Your task to perform on an android device: turn on showing notifications on the lock screen Image 0: 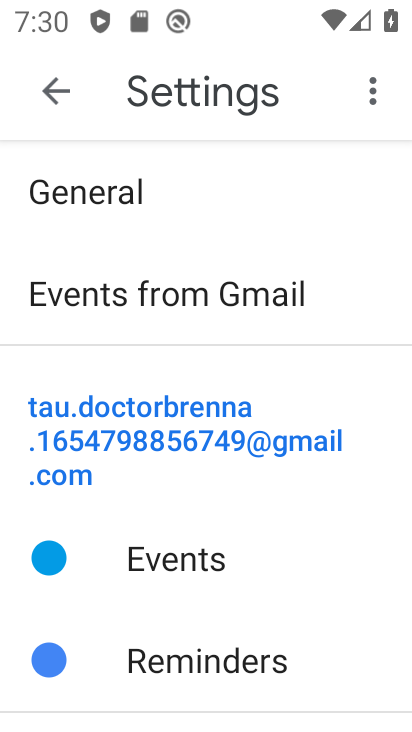
Step 0: press home button
Your task to perform on an android device: turn on showing notifications on the lock screen Image 1: 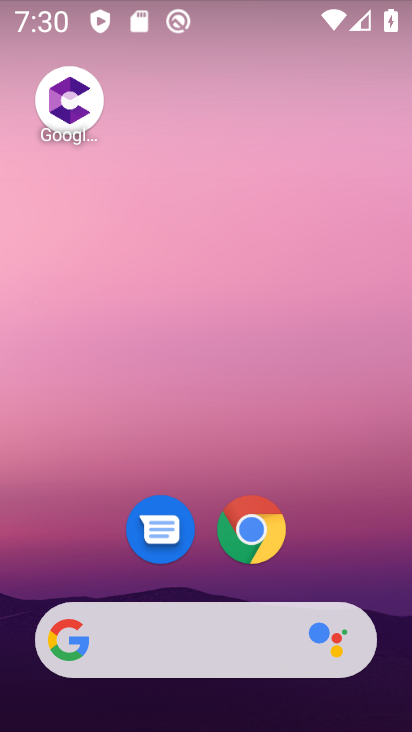
Step 1: drag from (190, 648) to (256, 216)
Your task to perform on an android device: turn on showing notifications on the lock screen Image 2: 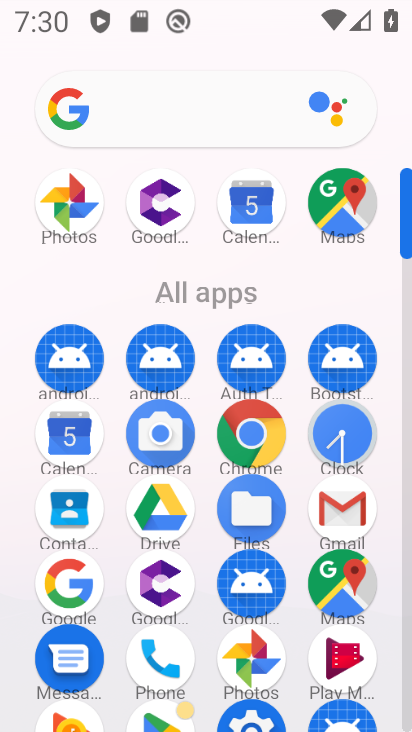
Step 2: drag from (204, 576) to (176, 270)
Your task to perform on an android device: turn on showing notifications on the lock screen Image 3: 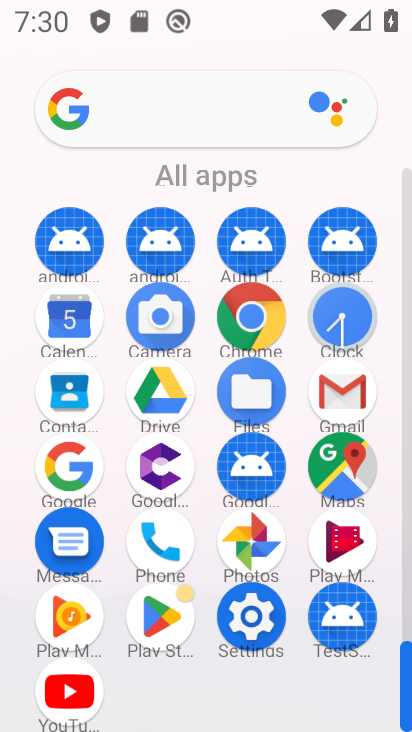
Step 3: click (251, 613)
Your task to perform on an android device: turn on showing notifications on the lock screen Image 4: 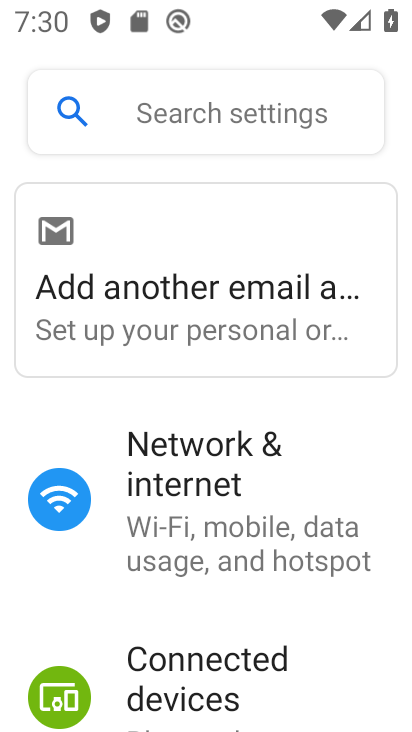
Step 4: drag from (217, 621) to (282, 472)
Your task to perform on an android device: turn on showing notifications on the lock screen Image 5: 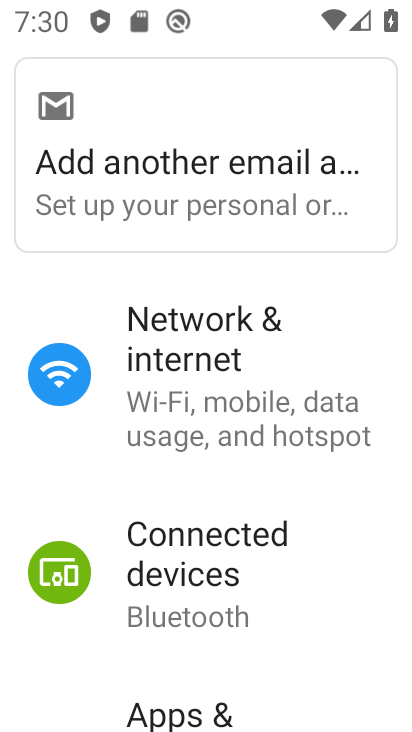
Step 5: drag from (181, 673) to (276, 534)
Your task to perform on an android device: turn on showing notifications on the lock screen Image 6: 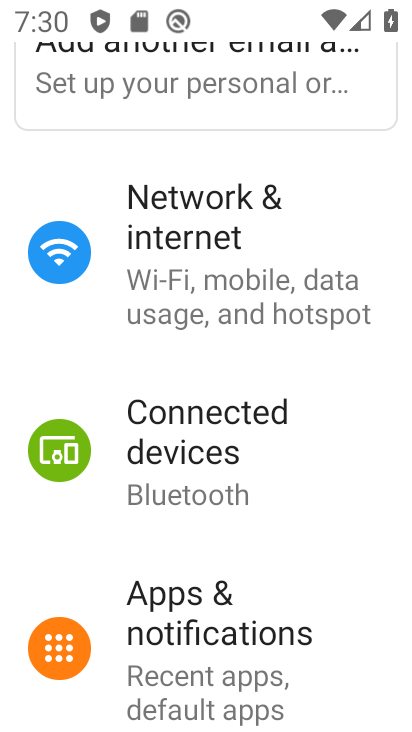
Step 6: drag from (219, 557) to (275, 458)
Your task to perform on an android device: turn on showing notifications on the lock screen Image 7: 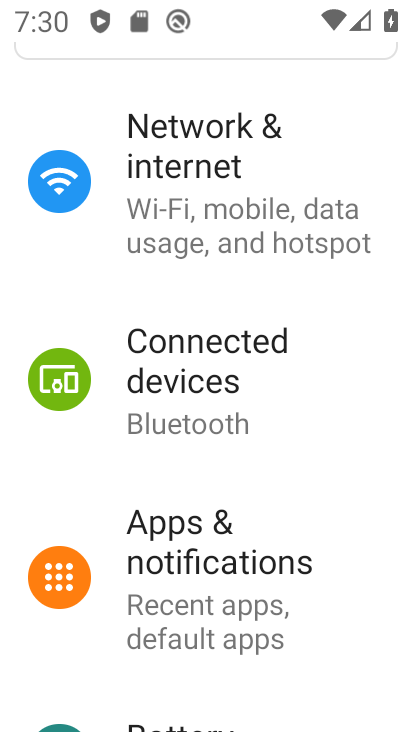
Step 7: click (198, 542)
Your task to perform on an android device: turn on showing notifications on the lock screen Image 8: 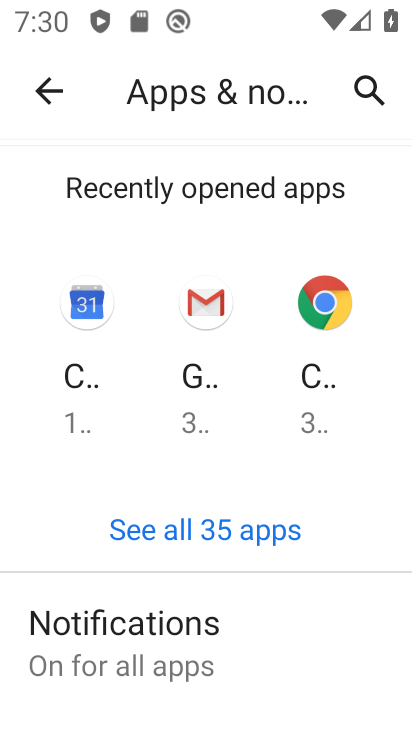
Step 8: click (174, 640)
Your task to perform on an android device: turn on showing notifications on the lock screen Image 9: 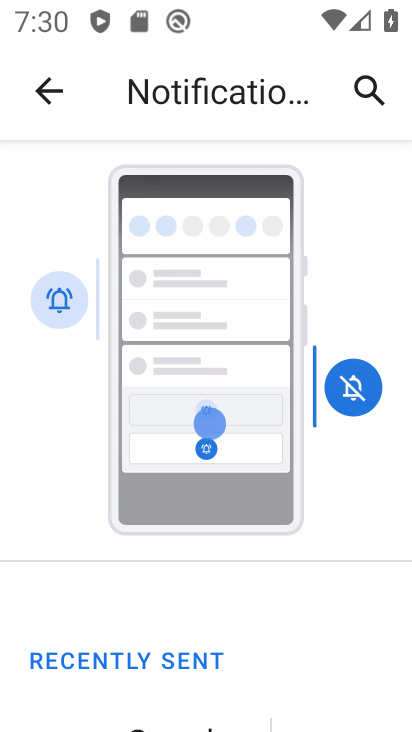
Step 9: drag from (163, 618) to (209, 488)
Your task to perform on an android device: turn on showing notifications on the lock screen Image 10: 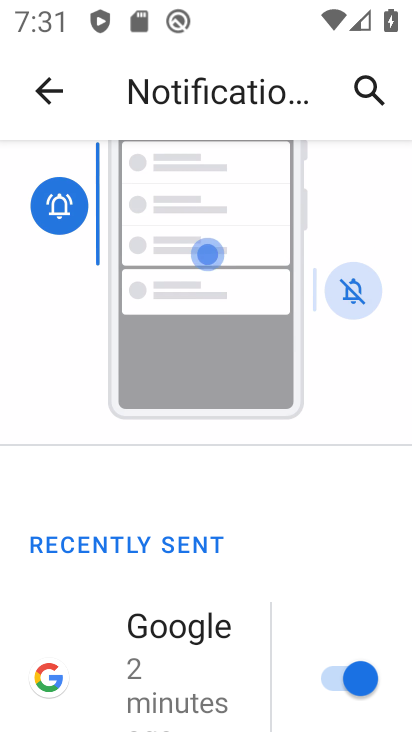
Step 10: drag from (178, 602) to (292, 451)
Your task to perform on an android device: turn on showing notifications on the lock screen Image 11: 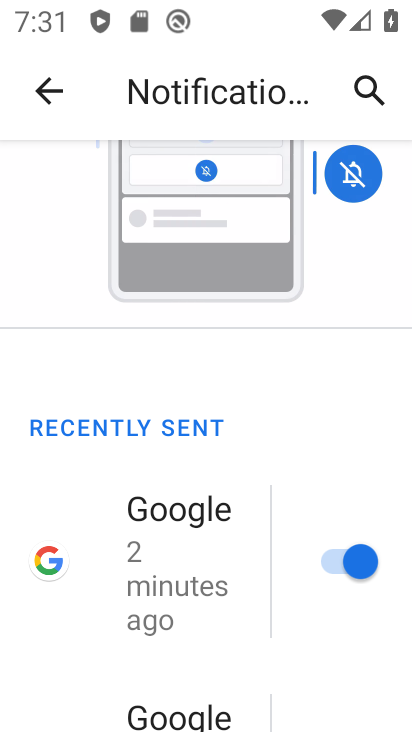
Step 11: drag from (164, 662) to (305, 465)
Your task to perform on an android device: turn on showing notifications on the lock screen Image 12: 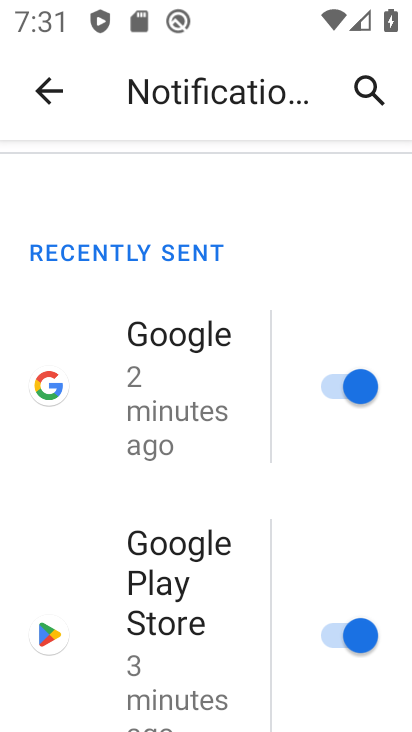
Step 12: drag from (182, 498) to (274, 325)
Your task to perform on an android device: turn on showing notifications on the lock screen Image 13: 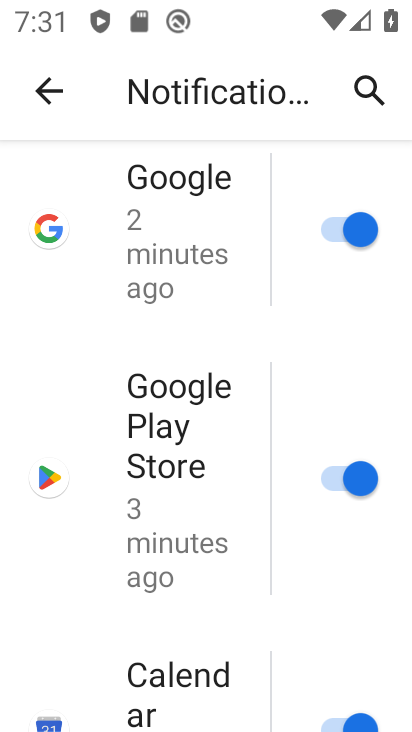
Step 13: drag from (175, 621) to (271, 443)
Your task to perform on an android device: turn on showing notifications on the lock screen Image 14: 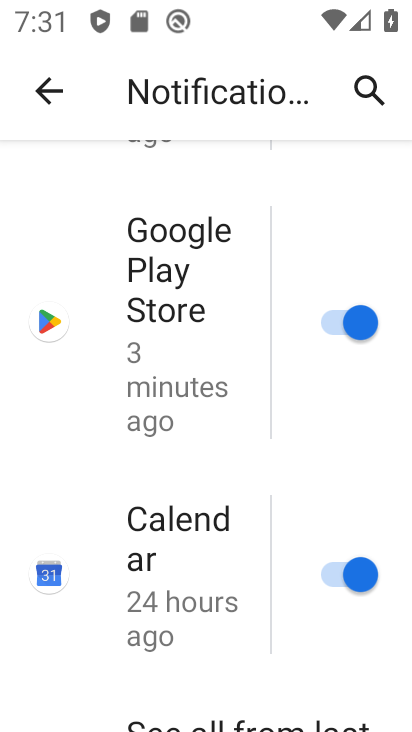
Step 14: drag from (181, 678) to (291, 513)
Your task to perform on an android device: turn on showing notifications on the lock screen Image 15: 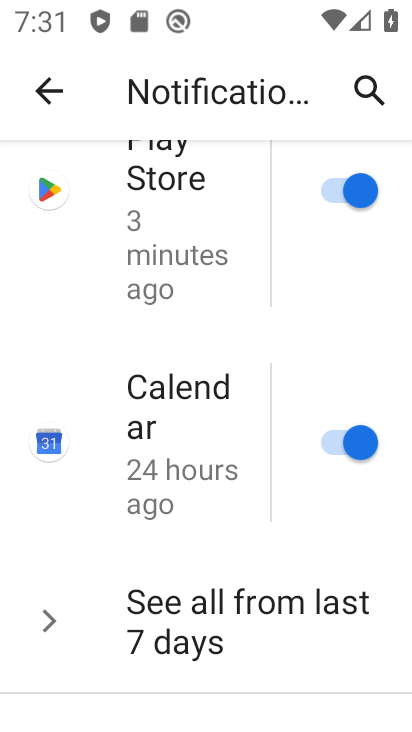
Step 15: drag from (156, 563) to (269, 396)
Your task to perform on an android device: turn on showing notifications on the lock screen Image 16: 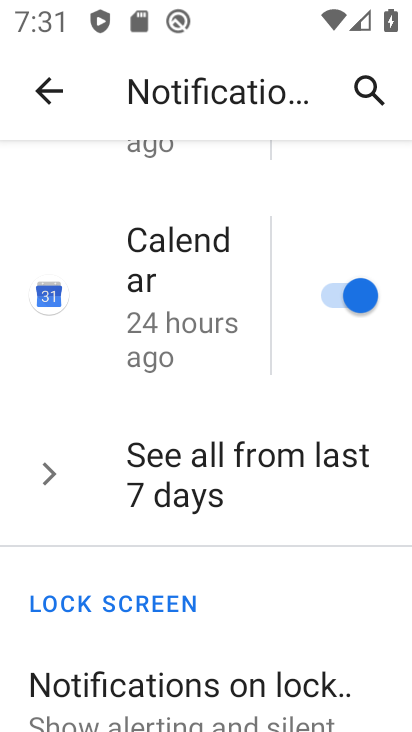
Step 16: drag from (138, 640) to (290, 474)
Your task to perform on an android device: turn on showing notifications on the lock screen Image 17: 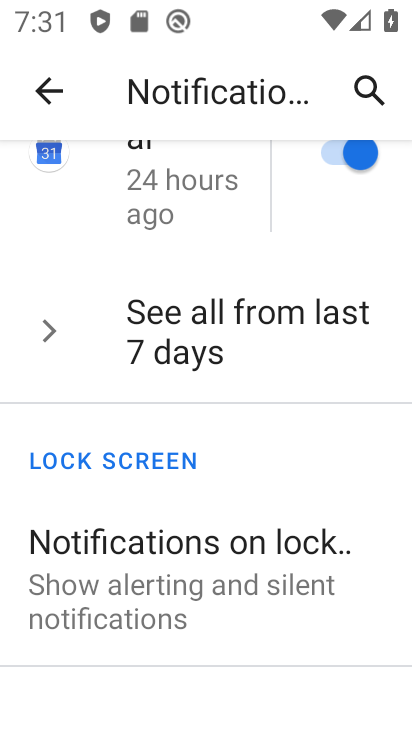
Step 17: click (187, 543)
Your task to perform on an android device: turn on showing notifications on the lock screen Image 18: 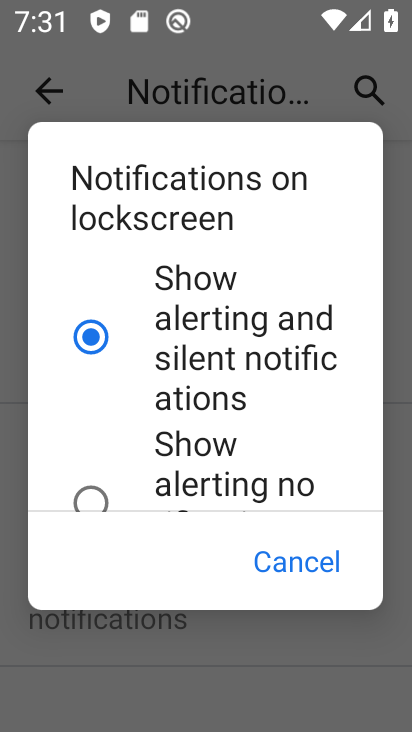
Step 18: click (94, 323)
Your task to perform on an android device: turn on showing notifications on the lock screen Image 19: 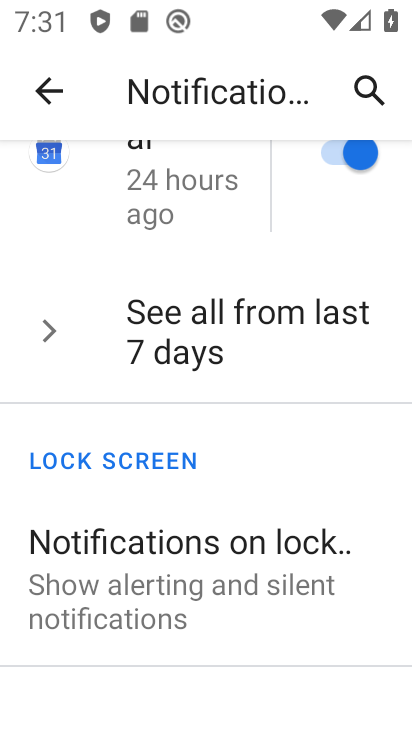
Step 19: task complete